Your task to perform on an android device: Go to accessibility settings Image 0: 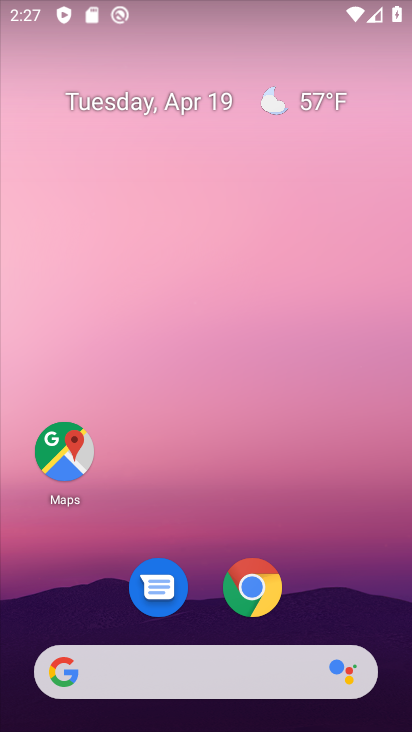
Step 0: drag from (194, 607) to (215, 116)
Your task to perform on an android device: Go to accessibility settings Image 1: 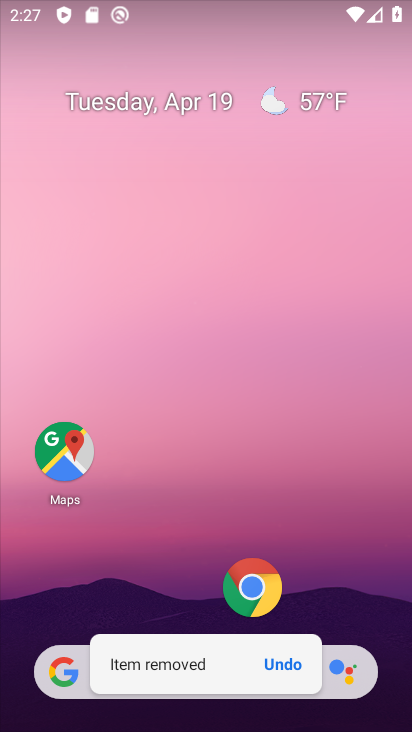
Step 1: drag from (174, 573) to (239, 5)
Your task to perform on an android device: Go to accessibility settings Image 2: 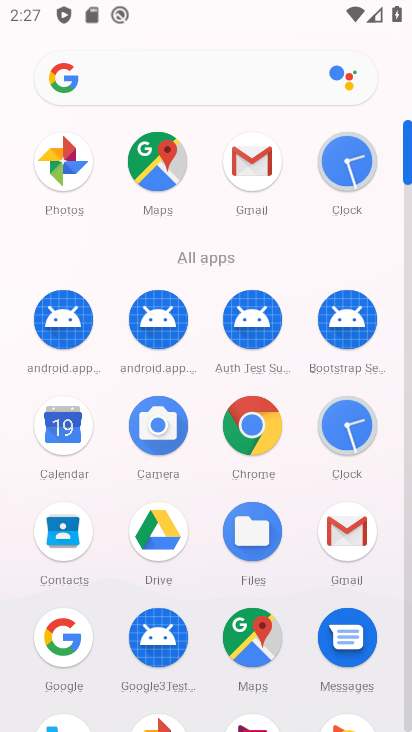
Step 2: drag from (209, 503) to (237, 210)
Your task to perform on an android device: Go to accessibility settings Image 3: 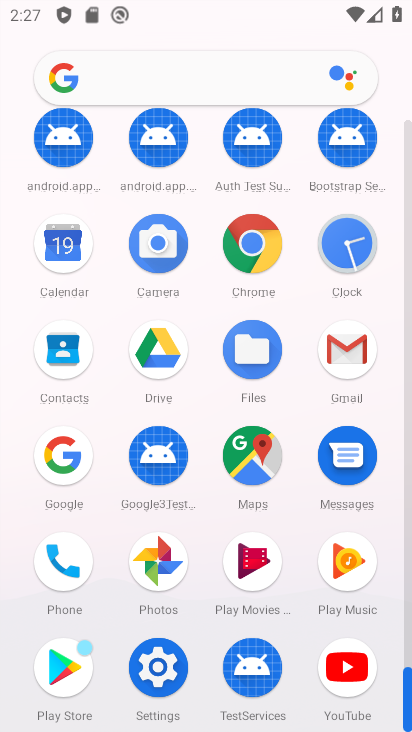
Step 3: click (150, 669)
Your task to perform on an android device: Go to accessibility settings Image 4: 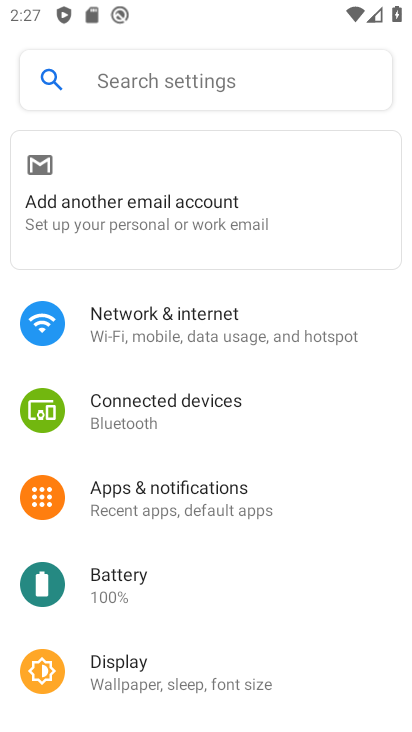
Step 4: drag from (218, 571) to (314, 103)
Your task to perform on an android device: Go to accessibility settings Image 5: 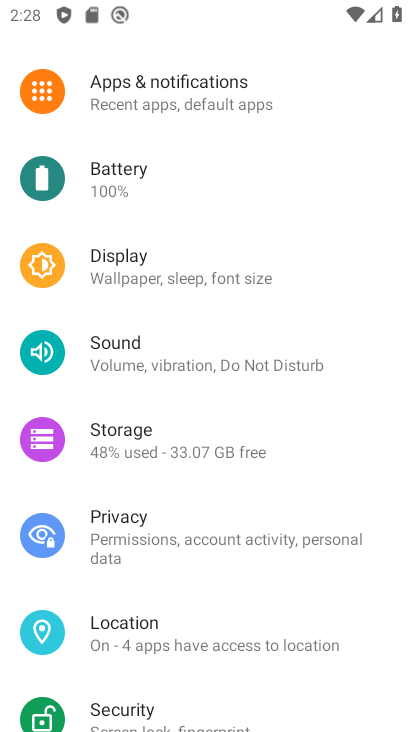
Step 5: drag from (171, 624) to (236, 262)
Your task to perform on an android device: Go to accessibility settings Image 6: 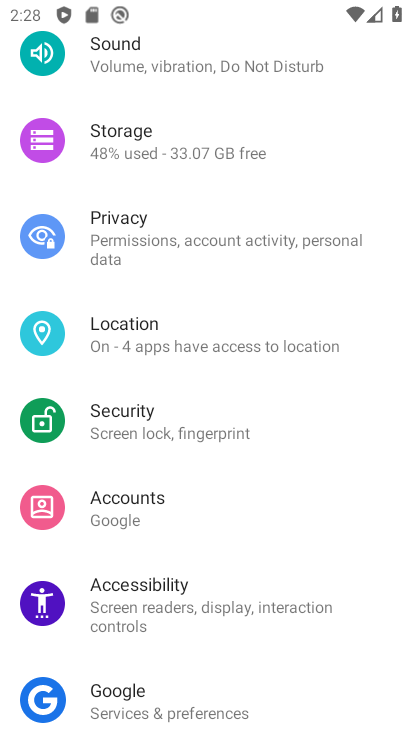
Step 6: click (141, 602)
Your task to perform on an android device: Go to accessibility settings Image 7: 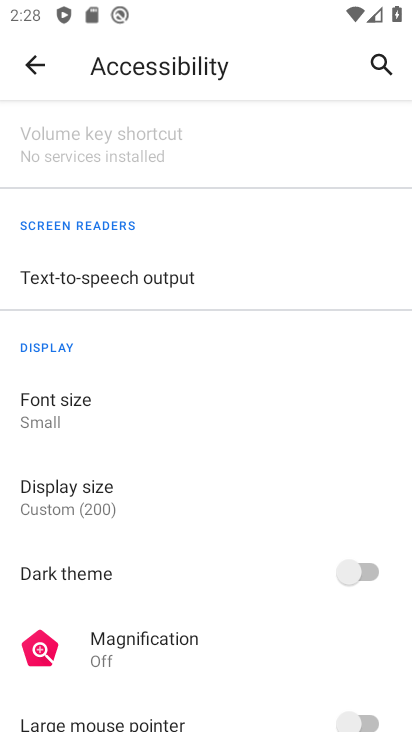
Step 7: task complete